Your task to perform on an android device: turn off picture-in-picture Image 0: 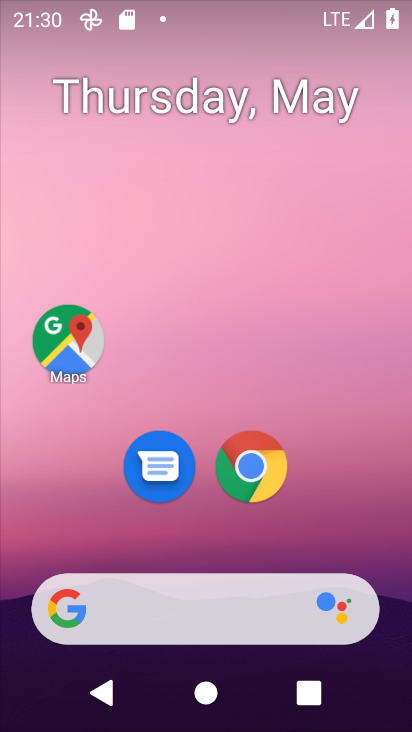
Step 0: drag from (384, 496) to (373, 92)
Your task to perform on an android device: turn off picture-in-picture Image 1: 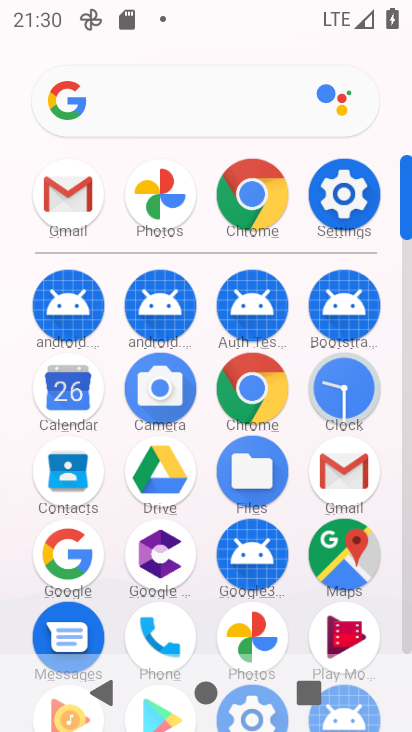
Step 1: click (350, 210)
Your task to perform on an android device: turn off picture-in-picture Image 2: 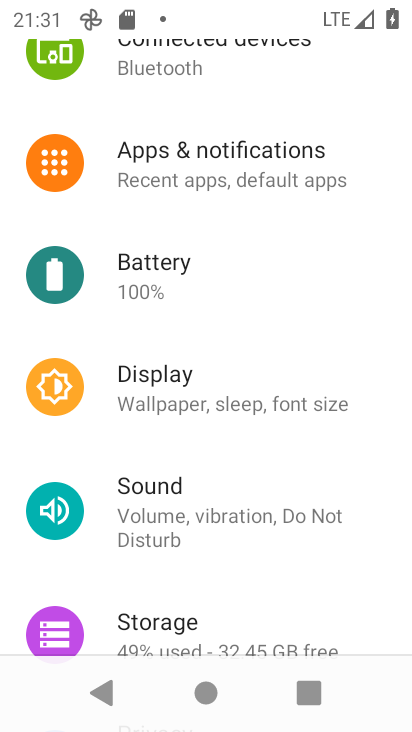
Step 2: task complete